Your task to perform on an android device: Show the shopping cart on ebay.com. Search for energizer triple a on ebay.com, select the first entry, and add it to the cart. Image 0: 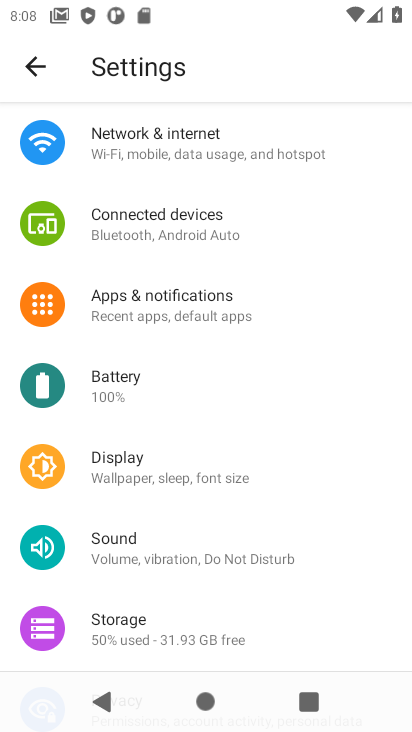
Step 0: press home button
Your task to perform on an android device: Show the shopping cart on ebay.com. Search for energizer triple a on ebay.com, select the first entry, and add it to the cart. Image 1: 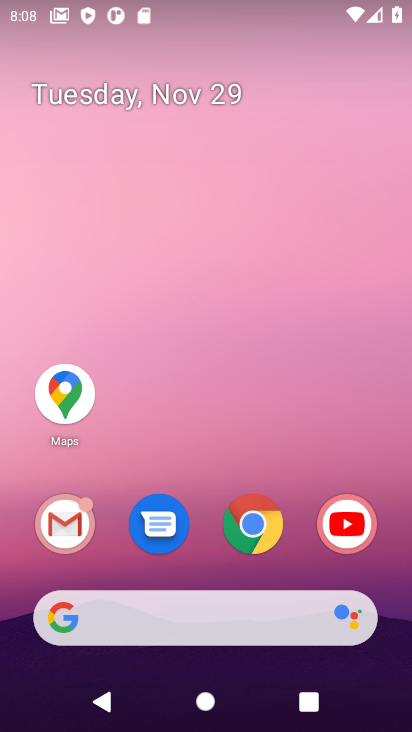
Step 1: click (254, 517)
Your task to perform on an android device: Show the shopping cart on ebay.com. Search for energizer triple a on ebay.com, select the first entry, and add it to the cart. Image 2: 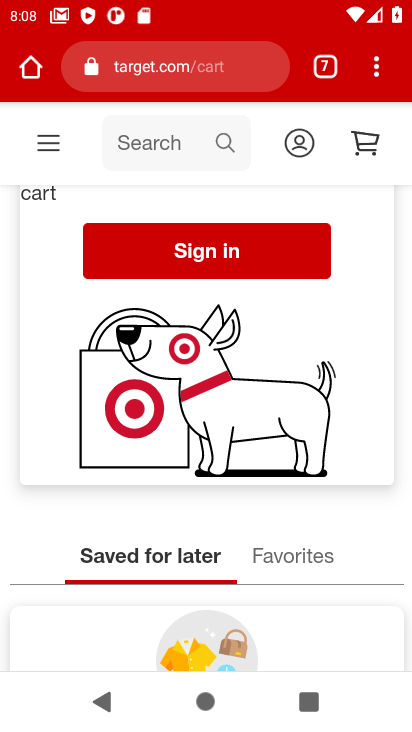
Step 2: click (164, 71)
Your task to perform on an android device: Show the shopping cart on ebay.com. Search for energizer triple a on ebay.com, select the first entry, and add it to the cart. Image 3: 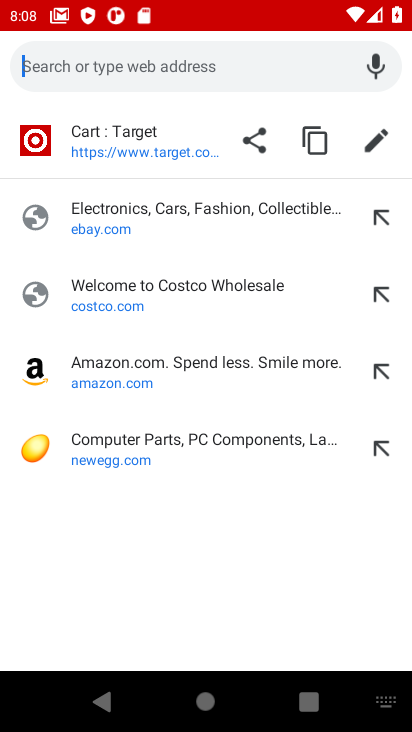
Step 3: click (102, 230)
Your task to perform on an android device: Show the shopping cart on ebay.com. Search for energizer triple a on ebay.com, select the first entry, and add it to the cart. Image 4: 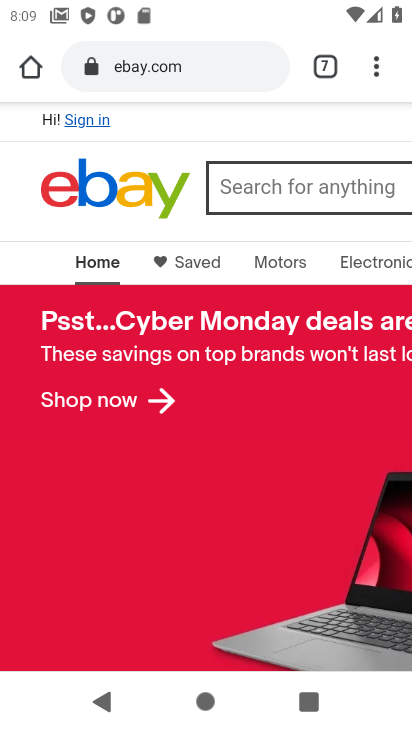
Step 4: drag from (361, 151) to (14, 181)
Your task to perform on an android device: Show the shopping cart on ebay.com. Search for energizer triple a on ebay.com, select the first entry, and add it to the cart. Image 5: 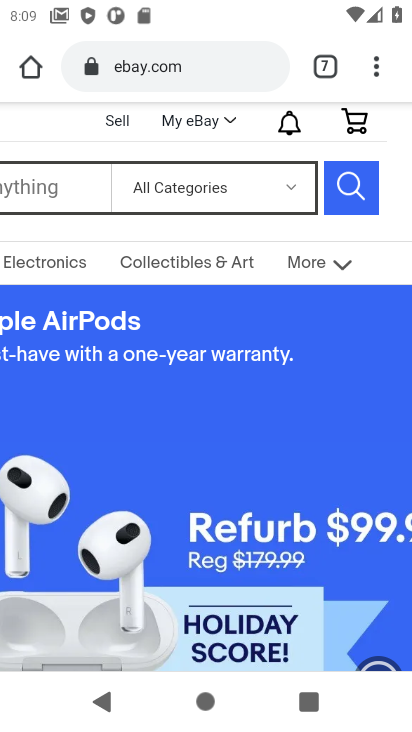
Step 5: click (358, 122)
Your task to perform on an android device: Show the shopping cart on ebay.com. Search for energizer triple a on ebay.com, select the first entry, and add it to the cart. Image 6: 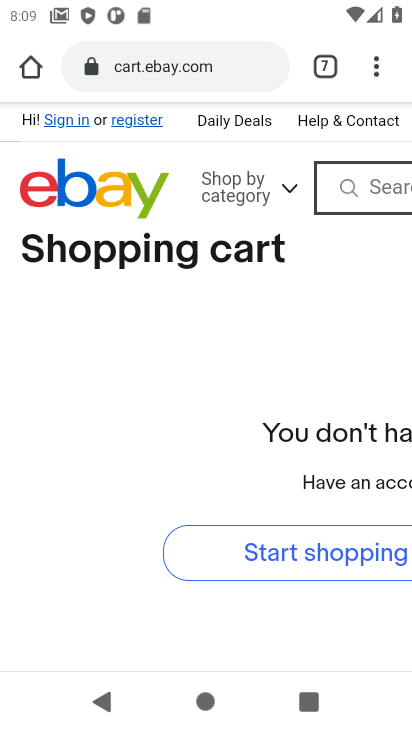
Step 6: click (371, 184)
Your task to perform on an android device: Show the shopping cart on ebay.com. Search for energizer triple a on ebay.com, select the first entry, and add it to the cart. Image 7: 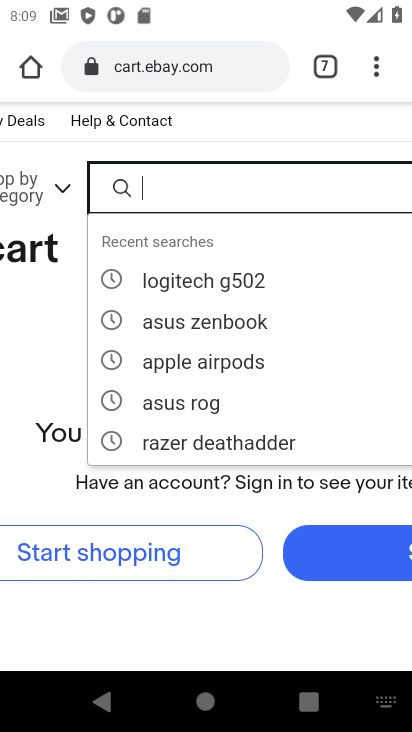
Step 7: type "energizer triple a"
Your task to perform on an android device: Show the shopping cart on ebay.com. Search for energizer triple a on ebay.com, select the first entry, and add it to the cart. Image 8: 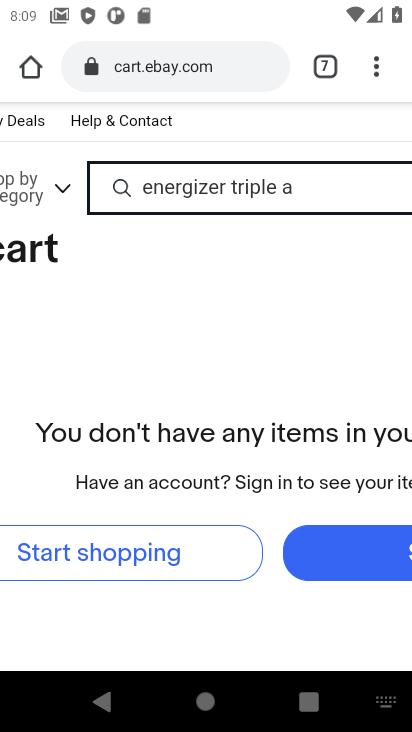
Step 8: drag from (320, 287) to (10, 328)
Your task to perform on an android device: Show the shopping cart on ebay.com. Search for energizer triple a on ebay.com, select the first entry, and add it to the cart. Image 9: 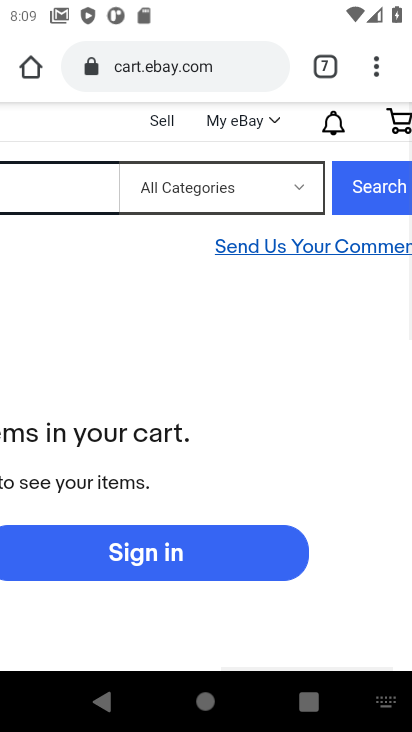
Step 9: click (349, 186)
Your task to perform on an android device: Show the shopping cart on ebay.com. Search for energizer triple a on ebay.com, select the first entry, and add it to the cart. Image 10: 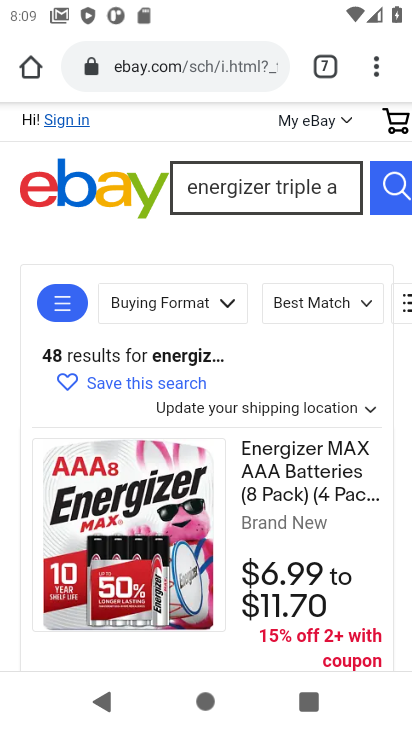
Step 10: drag from (223, 485) to (208, 339)
Your task to perform on an android device: Show the shopping cart on ebay.com. Search for energizer triple a on ebay.com, select the first entry, and add it to the cart. Image 11: 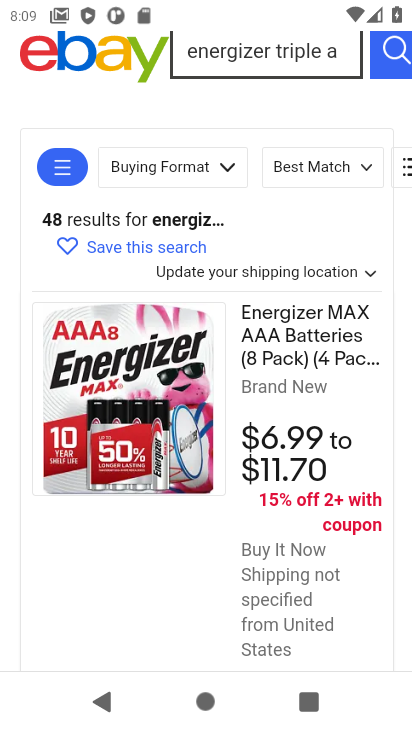
Step 11: click (168, 415)
Your task to perform on an android device: Show the shopping cart on ebay.com. Search for energizer triple a on ebay.com, select the first entry, and add it to the cart. Image 12: 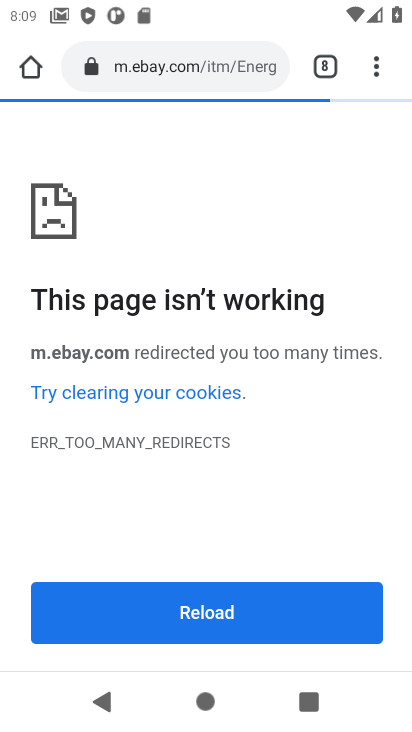
Step 12: task complete